Your task to perform on an android device: Go to display settings Image 0: 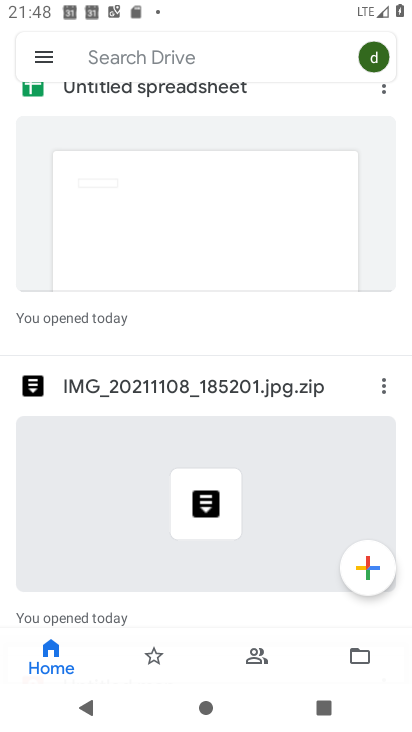
Step 0: drag from (219, 298) to (385, 652)
Your task to perform on an android device: Go to display settings Image 1: 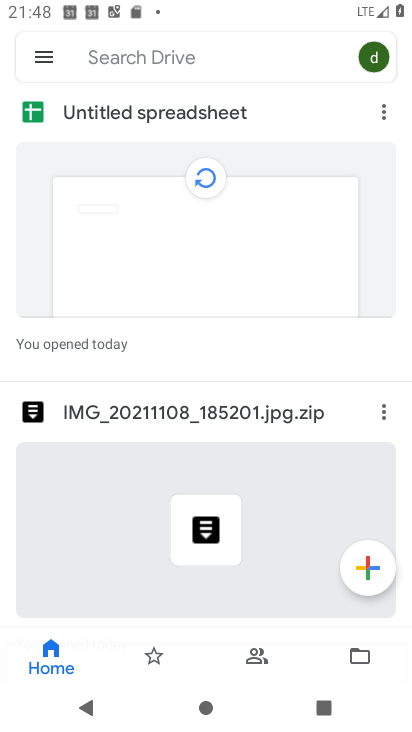
Step 1: press home button
Your task to perform on an android device: Go to display settings Image 2: 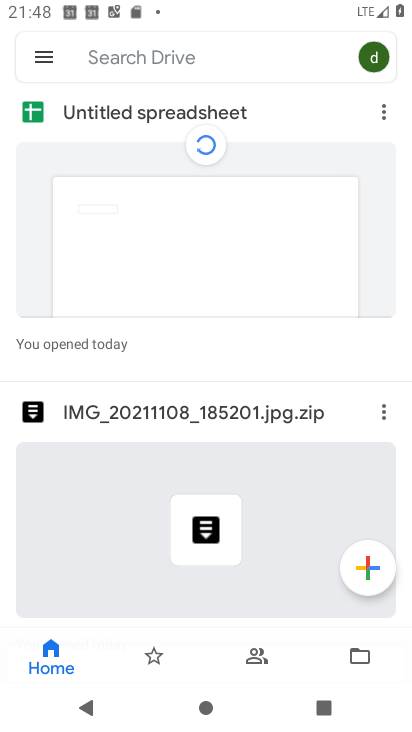
Step 2: drag from (385, 652) to (400, 535)
Your task to perform on an android device: Go to display settings Image 3: 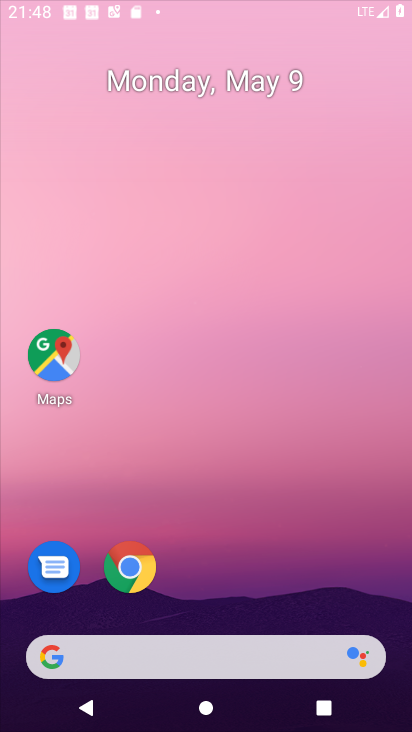
Step 3: drag from (124, 592) to (241, 194)
Your task to perform on an android device: Go to display settings Image 4: 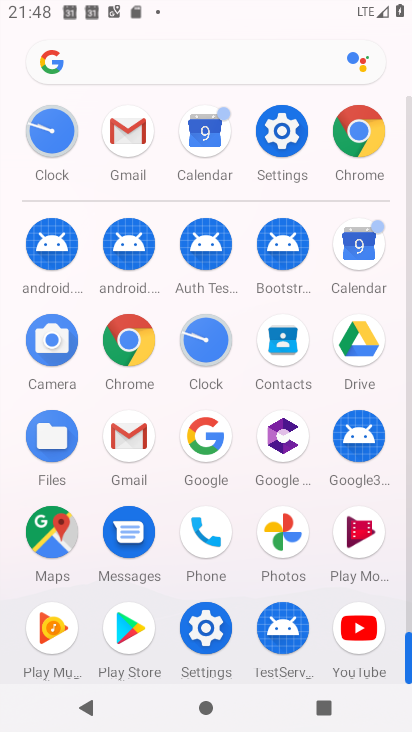
Step 4: click (283, 108)
Your task to perform on an android device: Go to display settings Image 5: 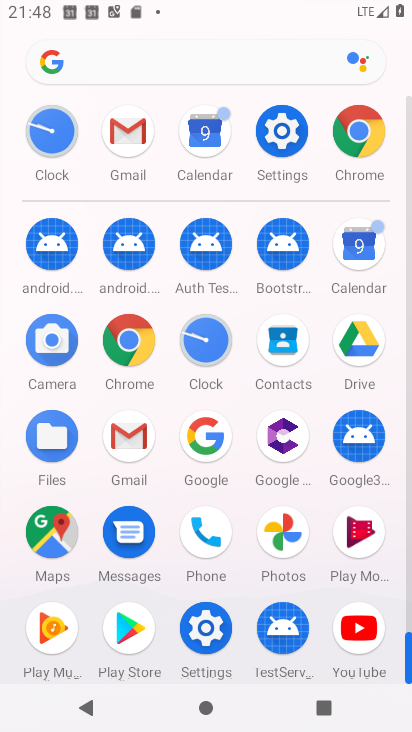
Step 5: click (283, 108)
Your task to perform on an android device: Go to display settings Image 6: 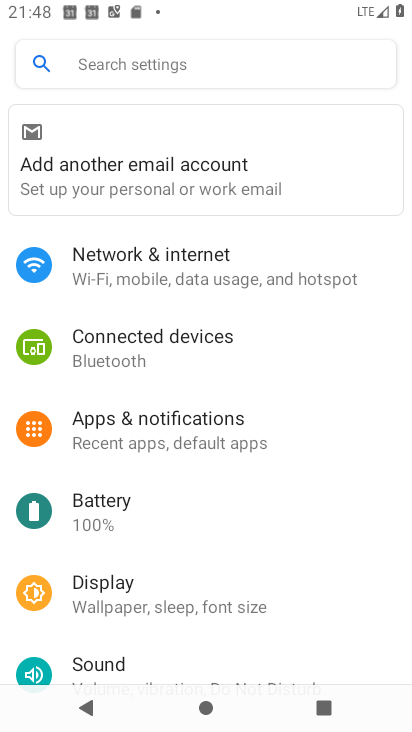
Step 6: click (144, 588)
Your task to perform on an android device: Go to display settings Image 7: 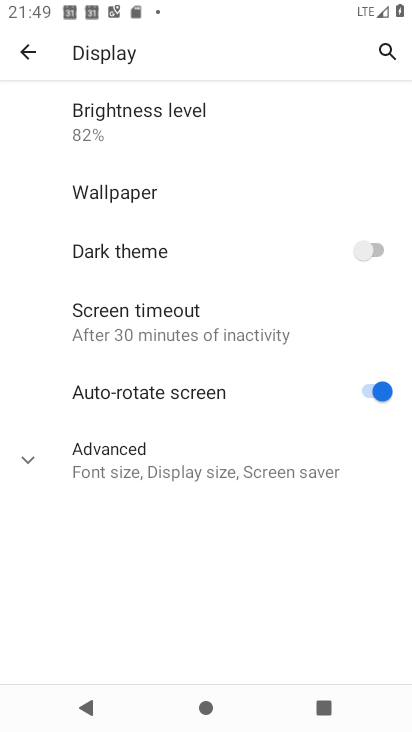
Step 7: task complete